Your task to perform on an android device: change alarm snooze length Image 0: 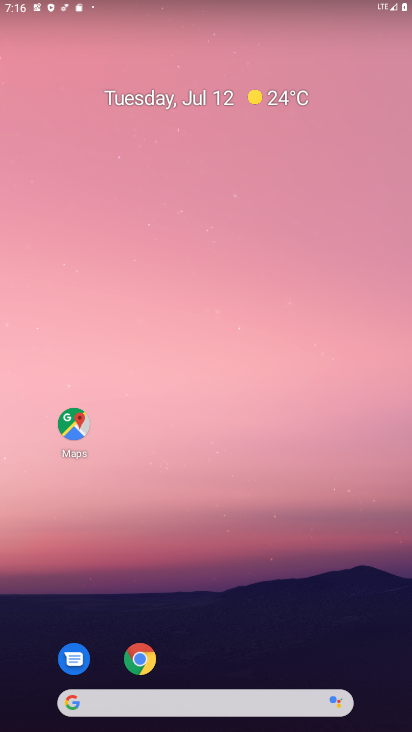
Step 0: drag from (342, 668) to (233, 6)
Your task to perform on an android device: change alarm snooze length Image 1: 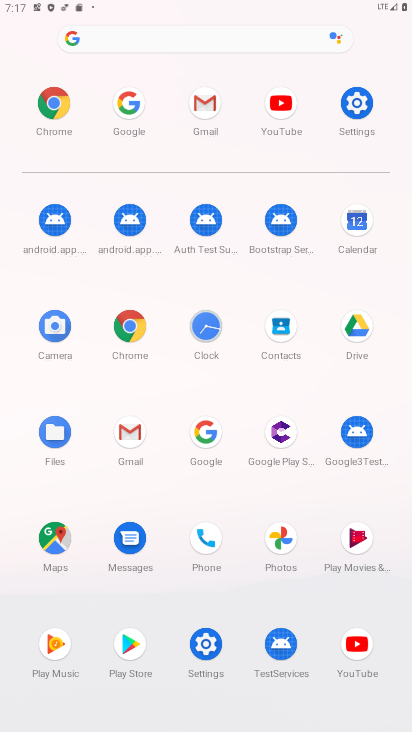
Step 1: click (197, 339)
Your task to perform on an android device: change alarm snooze length Image 2: 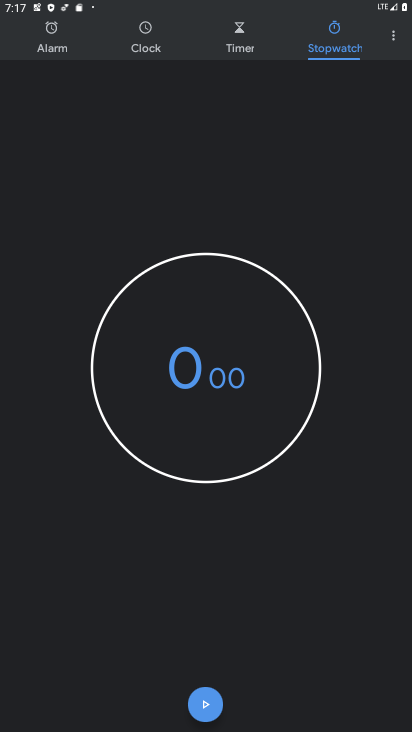
Step 2: click (386, 35)
Your task to perform on an android device: change alarm snooze length Image 3: 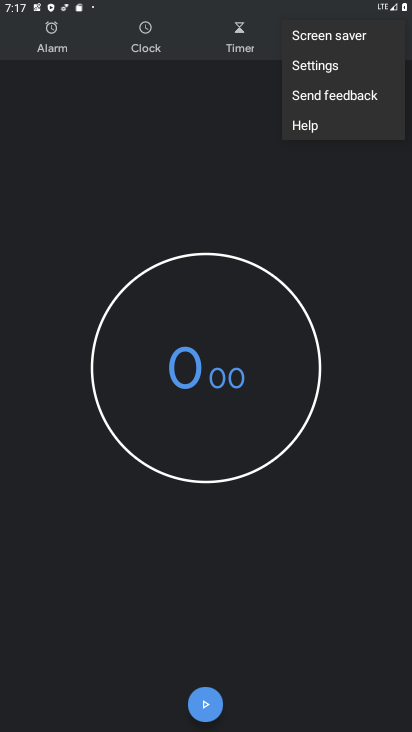
Step 3: click (338, 68)
Your task to perform on an android device: change alarm snooze length Image 4: 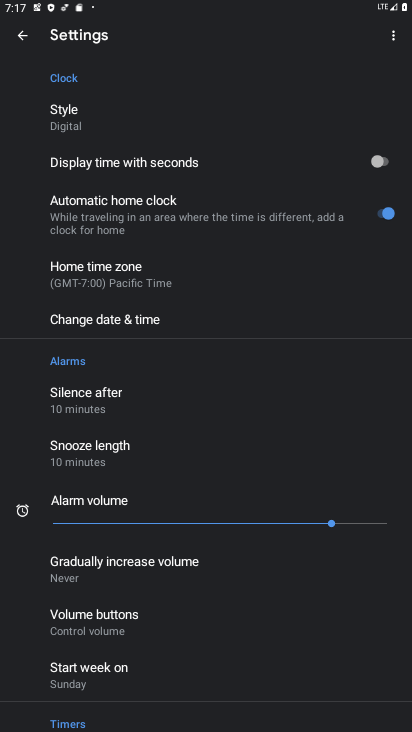
Step 4: click (118, 454)
Your task to perform on an android device: change alarm snooze length Image 5: 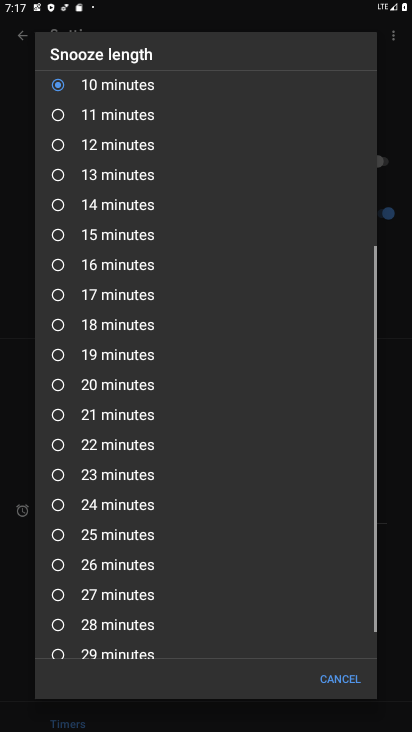
Step 5: click (94, 444)
Your task to perform on an android device: change alarm snooze length Image 6: 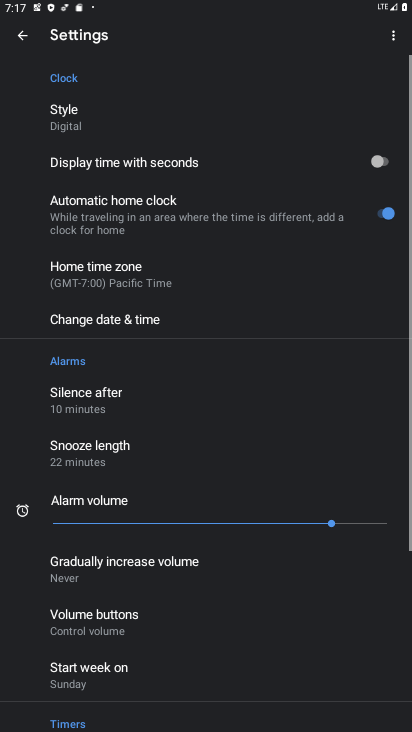
Step 6: task complete